Your task to perform on an android device: Open calendar and show me the first week of next month Image 0: 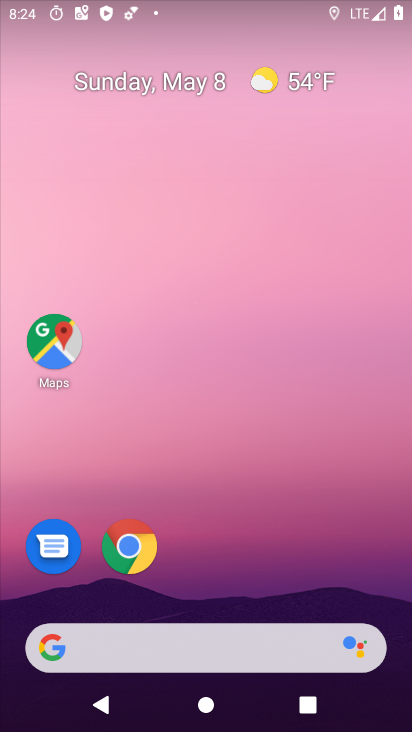
Step 0: drag from (380, 495) to (374, 266)
Your task to perform on an android device: Open calendar and show me the first week of next month Image 1: 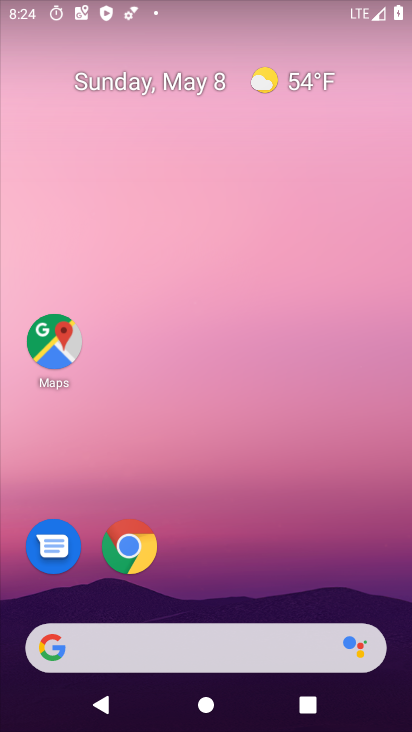
Step 1: drag from (382, 578) to (317, 227)
Your task to perform on an android device: Open calendar and show me the first week of next month Image 2: 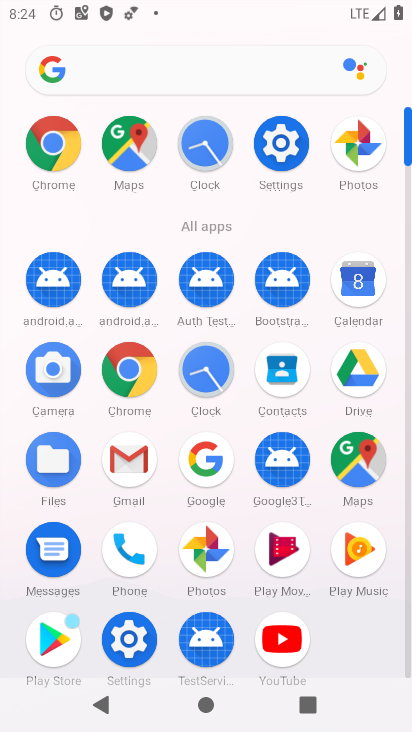
Step 2: click (349, 293)
Your task to perform on an android device: Open calendar and show me the first week of next month Image 3: 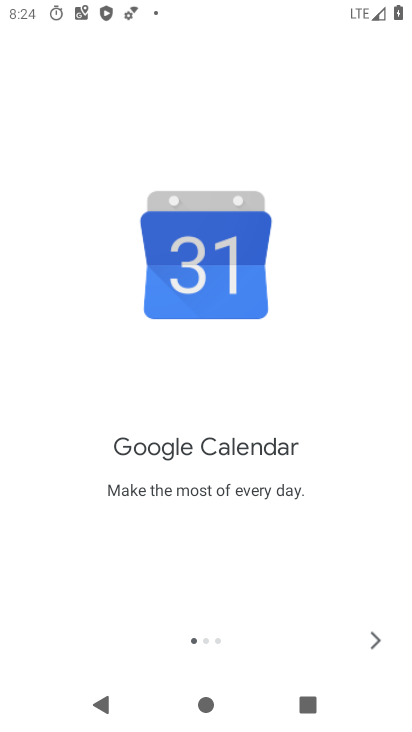
Step 3: click (371, 639)
Your task to perform on an android device: Open calendar and show me the first week of next month Image 4: 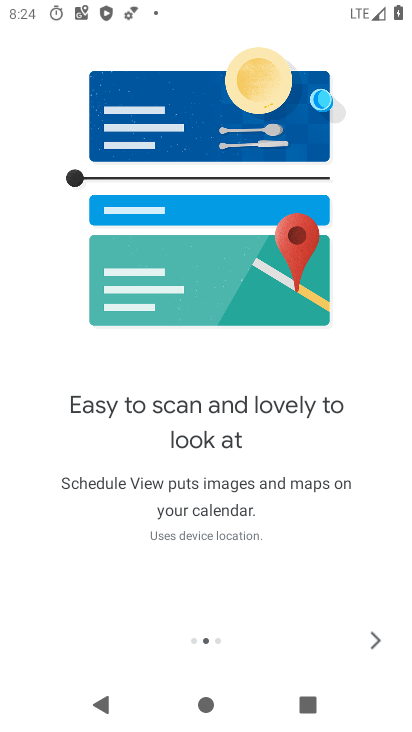
Step 4: click (358, 632)
Your task to perform on an android device: Open calendar and show me the first week of next month Image 5: 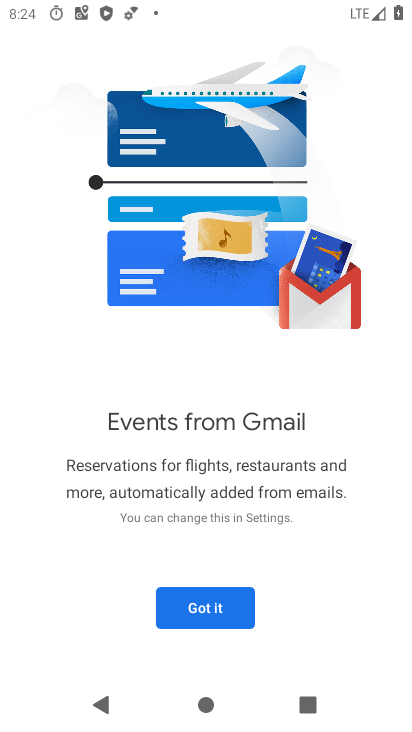
Step 5: click (192, 611)
Your task to perform on an android device: Open calendar and show me the first week of next month Image 6: 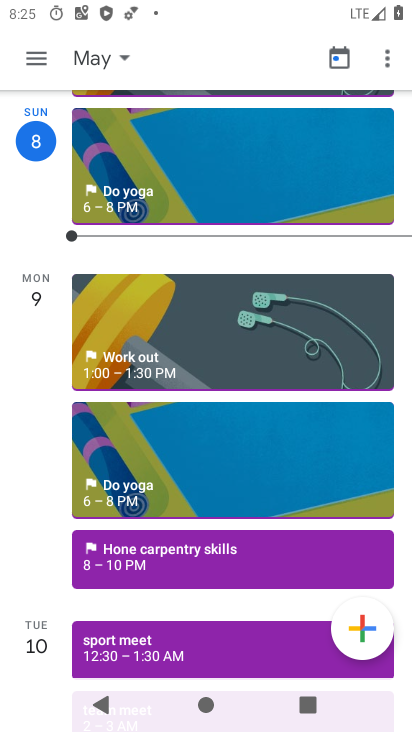
Step 6: click (124, 57)
Your task to perform on an android device: Open calendar and show me the first week of next month Image 7: 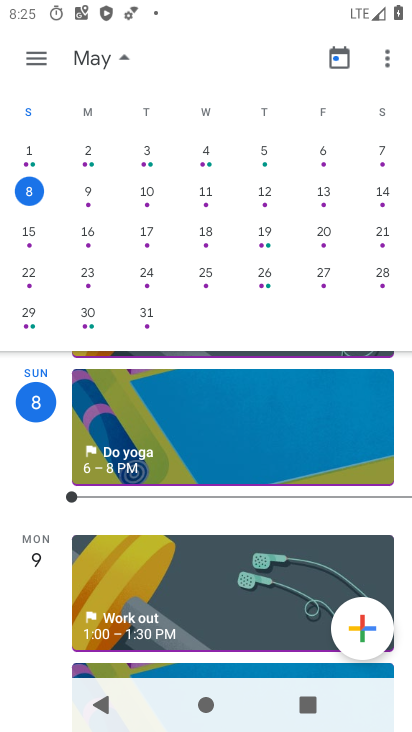
Step 7: drag from (380, 218) to (92, 204)
Your task to perform on an android device: Open calendar and show me the first week of next month Image 8: 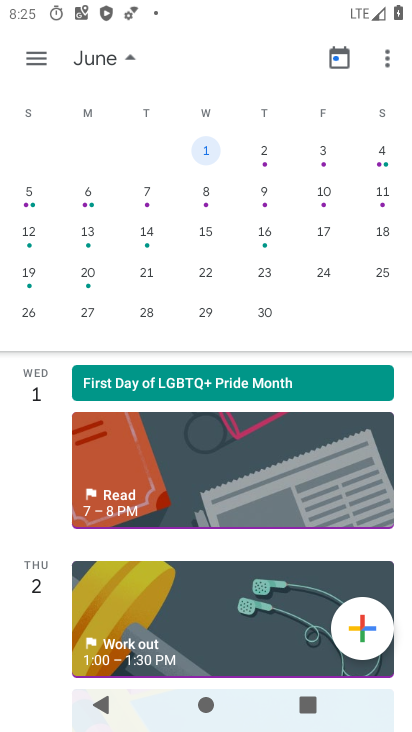
Step 8: click (316, 148)
Your task to perform on an android device: Open calendar and show me the first week of next month Image 9: 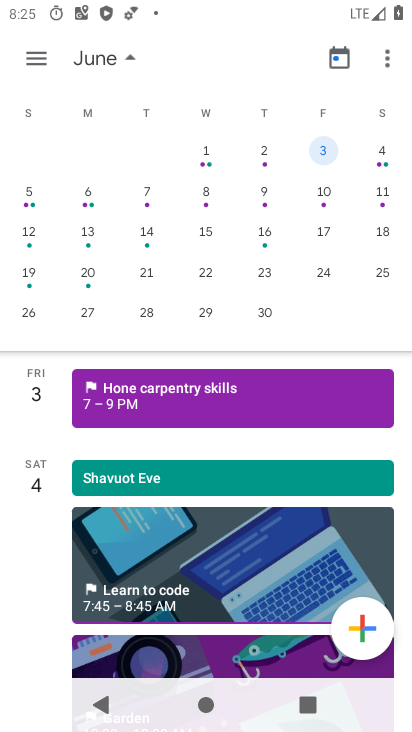
Step 9: task complete